Your task to perform on an android device: Clear the shopping cart on bestbuy.com. Search for alienware area 51 on bestbuy.com, select the first entry, and add it to the cart. Image 0: 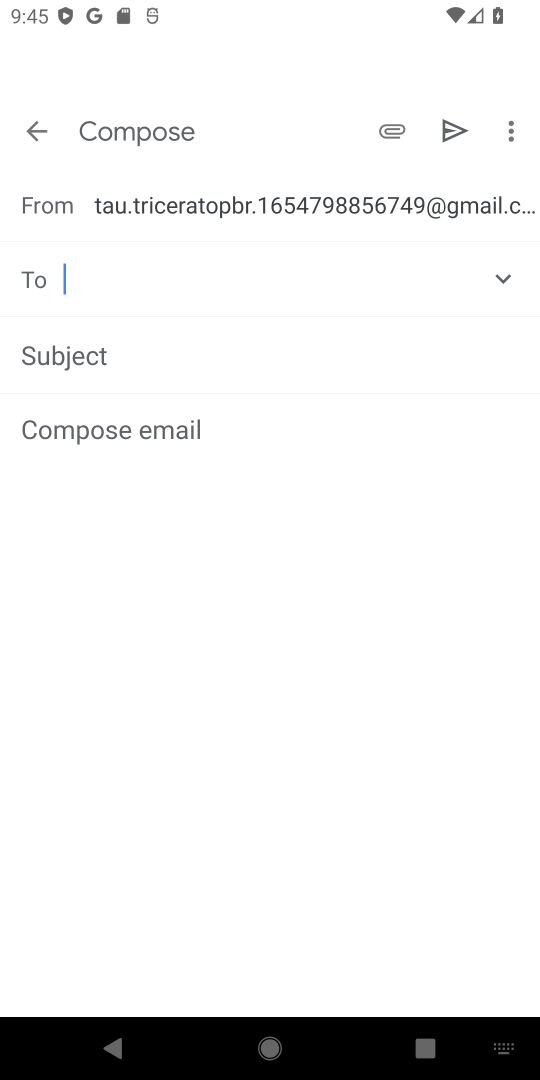
Step 0: press home button
Your task to perform on an android device: Clear the shopping cart on bestbuy.com. Search for alienware area 51 on bestbuy.com, select the first entry, and add it to the cart. Image 1: 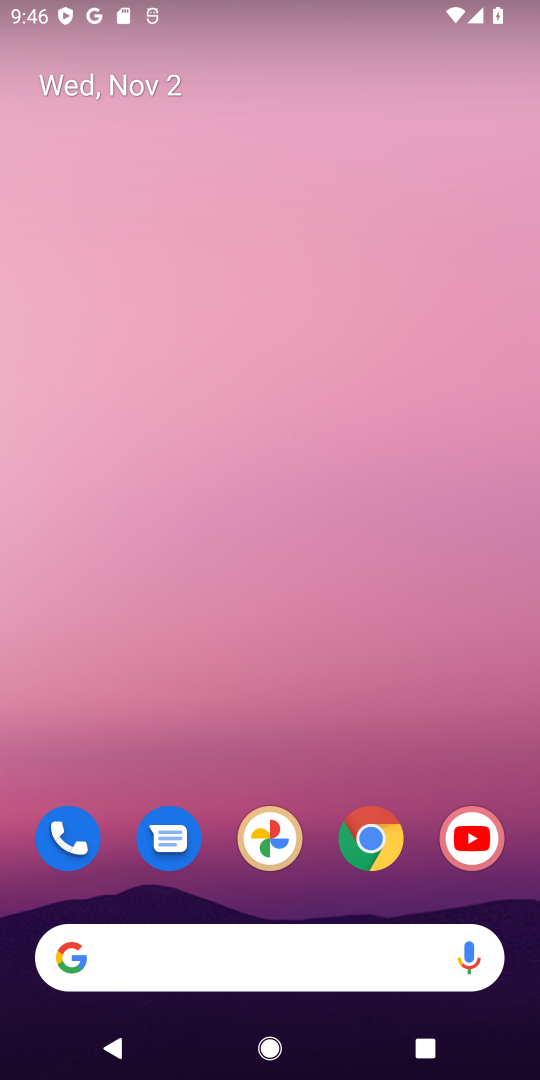
Step 1: click (366, 853)
Your task to perform on an android device: Clear the shopping cart on bestbuy.com. Search for alienware area 51 on bestbuy.com, select the first entry, and add it to the cart. Image 2: 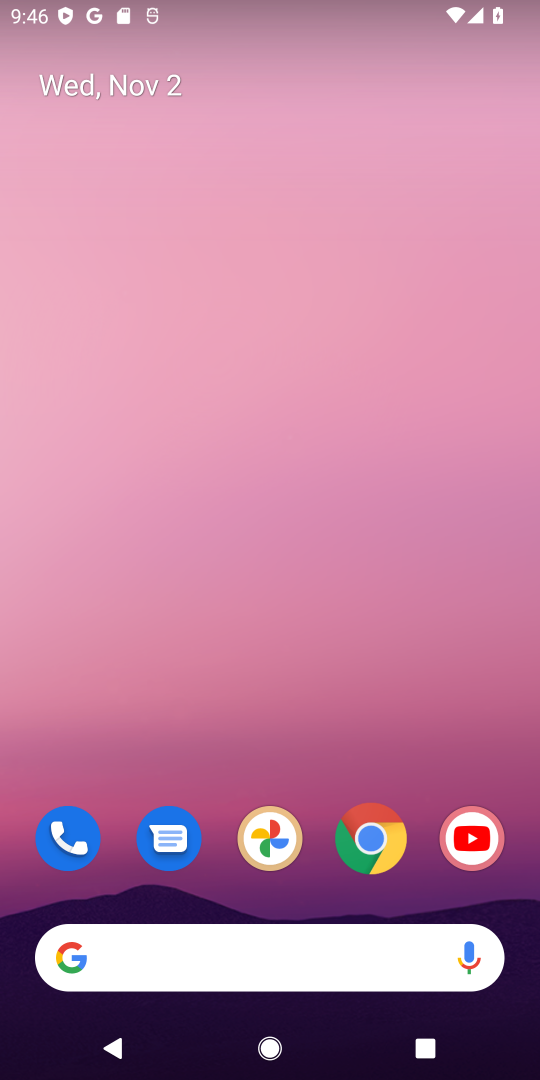
Step 2: click (377, 878)
Your task to perform on an android device: Clear the shopping cart on bestbuy.com. Search for alienware area 51 on bestbuy.com, select the first entry, and add it to the cart. Image 3: 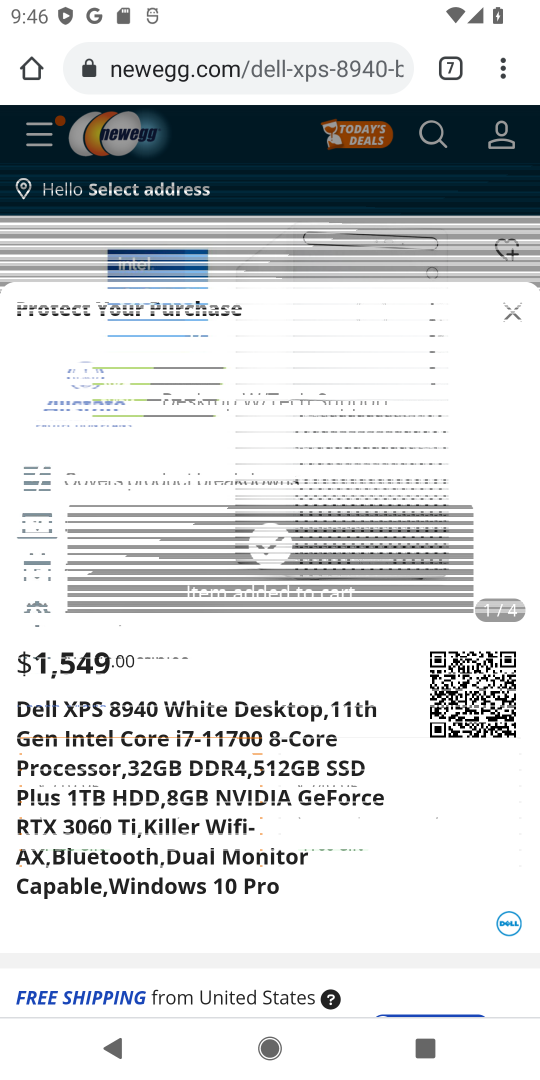
Step 3: click (449, 58)
Your task to perform on an android device: Clear the shopping cart on bestbuy.com. Search for alienware area 51 on bestbuy.com, select the first entry, and add it to the cart. Image 4: 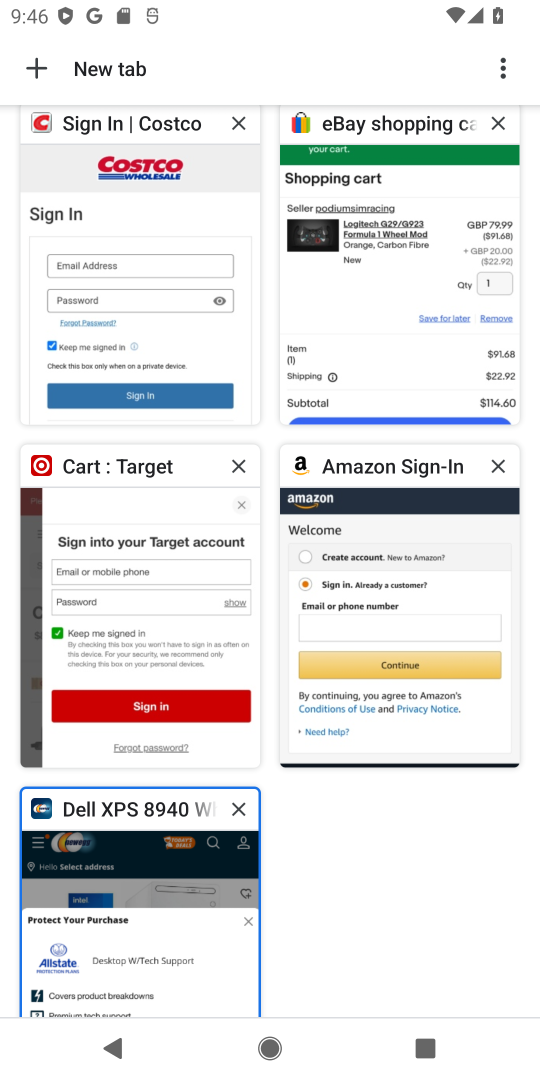
Step 4: drag from (407, 246) to (339, 700)
Your task to perform on an android device: Clear the shopping cart on bestbuy.com. Search for alienware area 51 on bestbuy.com, select the first entry, and add it to the cart. Image 5: 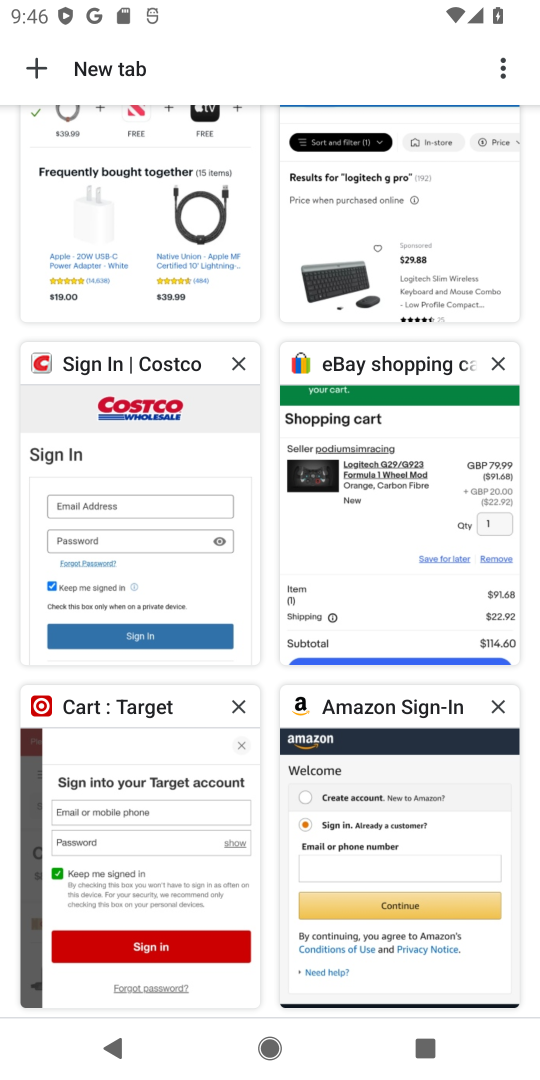
Step 5: drag from (387, 209) to (372, 937)
Your task to perform on an android device: Clear the shopping cart on bestbuy.com. Search for alienware area 51 on bestbuy.com, select the first entry, and add it to the cart. Image 6: 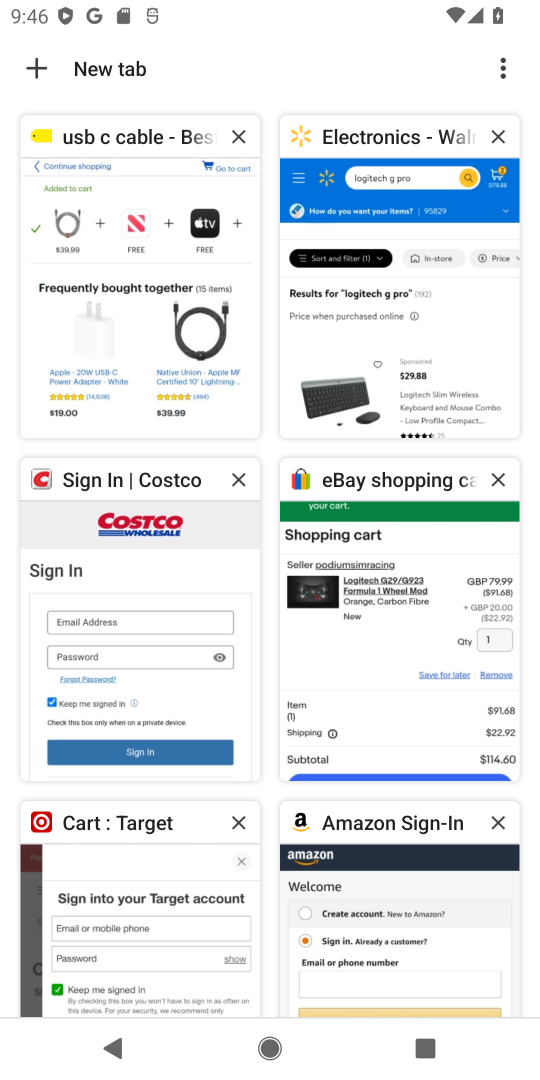
Step 6: click (159, 379)
Your task to perform on an android device: Clear the shopping cart on bestbuy.com. Search for alienware area 51 on bestbuy.com, select the first entry, and add it to the cart. Image 7: 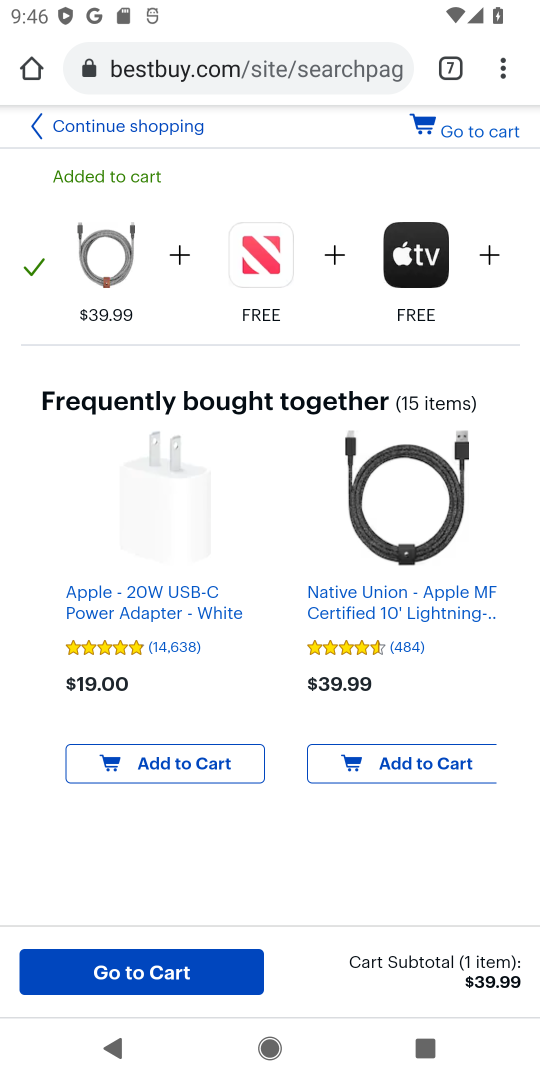
Step 7: click (481, 136)
Your task to perform on an android device: Clear the shopping cart on bestbuy.com. Search for alienware area 51 on bestbuy.com, select the first entry, and add it to the cart. Image 8: 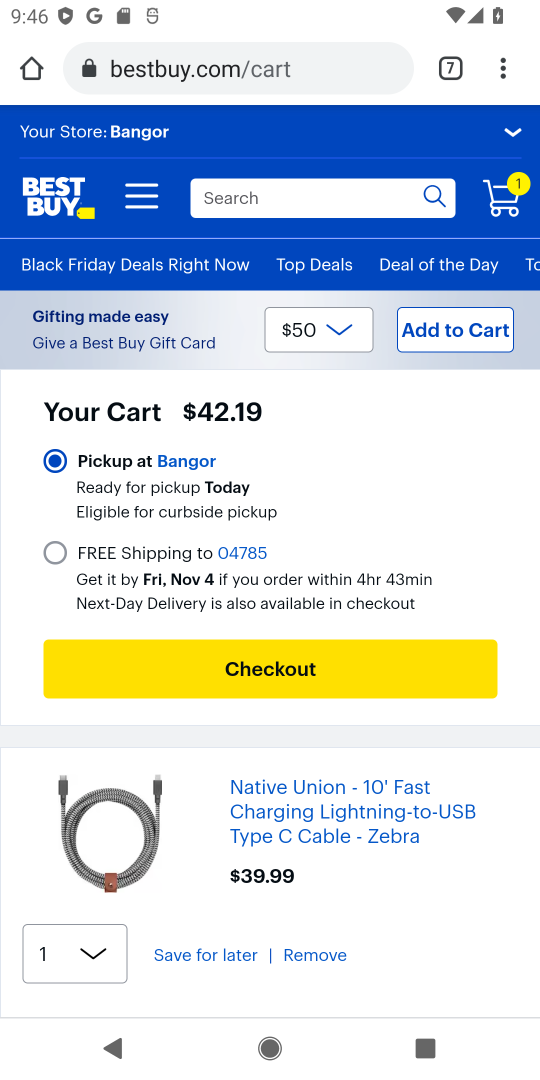
Step 8: click (305, 949)
Your task to perform on an android device: Clear the shopping cart on bestbuy.com. Search for alienware area 51 on bestbuy.com, select the first entry, and add it to the cart. Image 9: 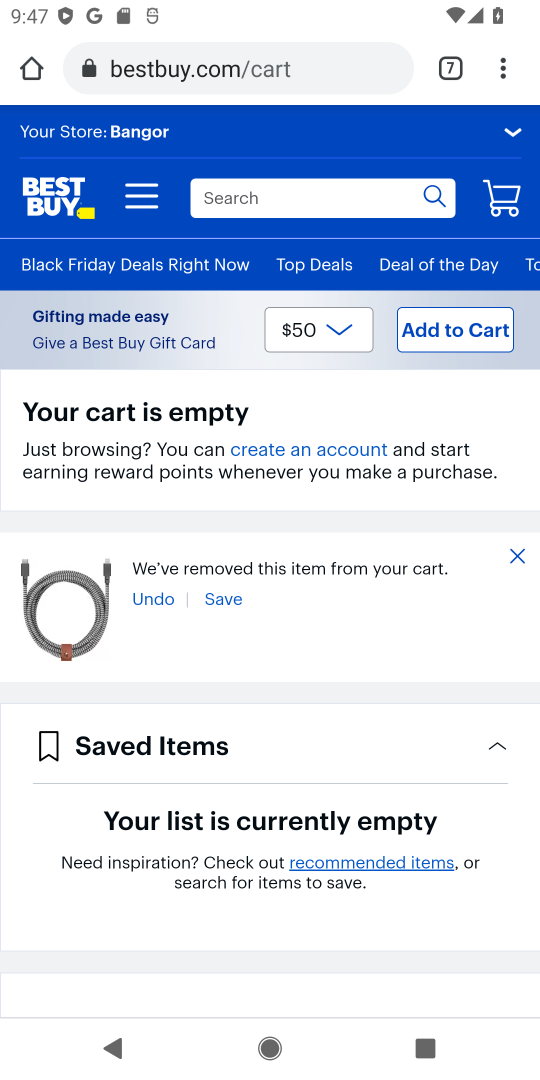
Step 9: click (245, 192)
Your task to perform on an android device: Clear the shopping cart on bestbuy.com. Search for alienware area 51 on bestbuy.com, select the first entry, and add it to the cart. Image 10: 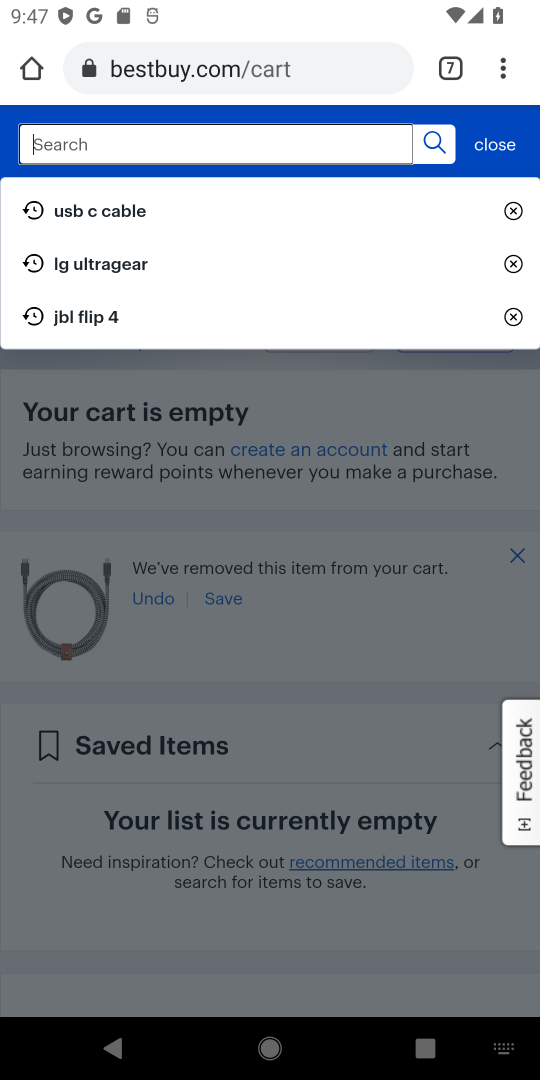
Step 10: type "alienware area 51 "
Your task to perform on an android device: Clear the shopping cart on bestbuy.com. Search for alienware area 51 on bestbuy.com, select the first entry, and add it to the cart. Image 11: 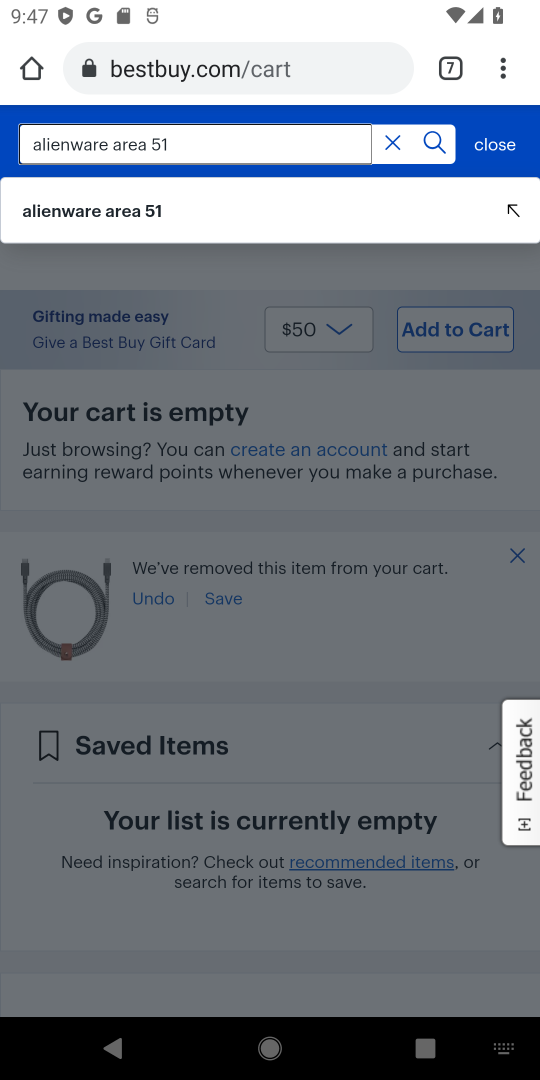
Step 11: click (147, 213)
Your task to perform on an android device: Clear the shopping cart on bestbuy.com. Search for alienware area 51 on bestbuy.com, select the first entry, and add it to the cart. Image 12: 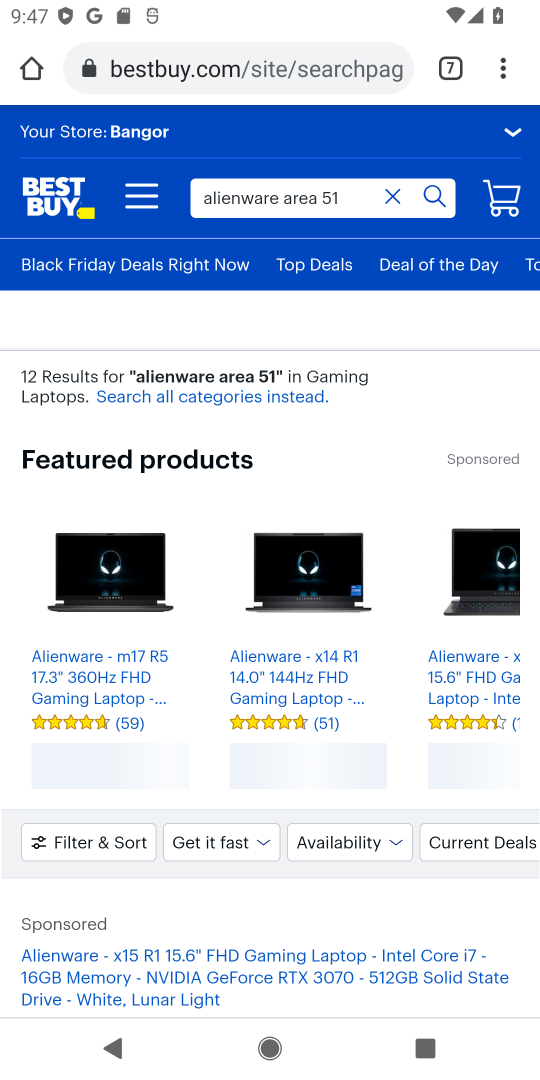
Step 12: drag from (232, 929) to (318, 374)
Your task to perform on an android device: Clear the shopping cart on bestbuy.com. Search for alienware area 51 on bestbuy.com, select the first entry, and add it to the cart. Image 13: 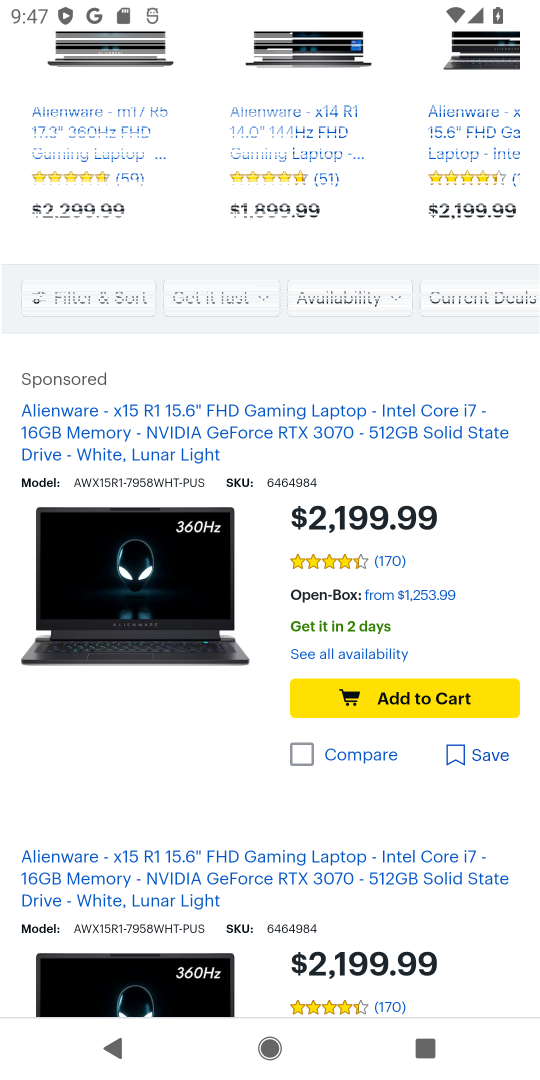
Step 13: click (362, 690)
Your task to perform on an android device: Clear the shopping cart on bestbuy.com. Search for alienware area 51 on bestbuy.com, select the first entry, and add it to the cart. Image 14: 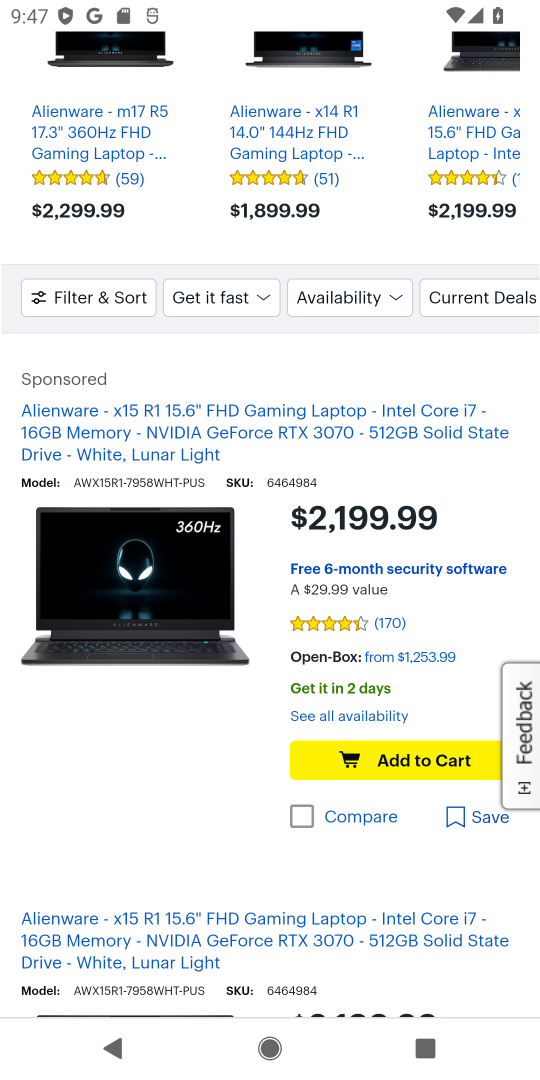
Step 14: task complete